Your task to perform on an android device: Open Wikipedia Image 0: 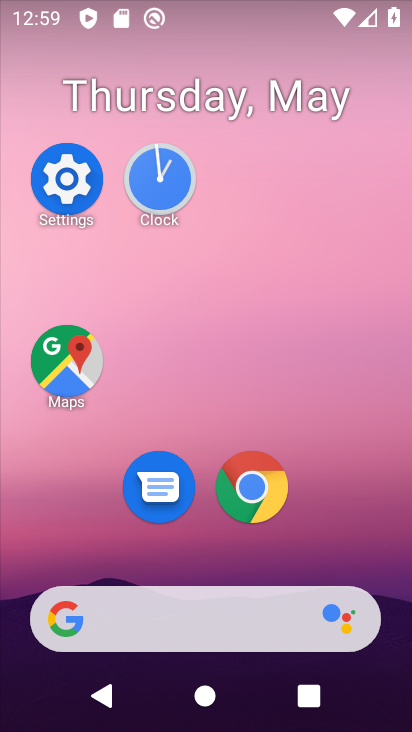
Step 0: click (261, 498)
Your task to perform on an android device: Open Wikipedia Image 1: 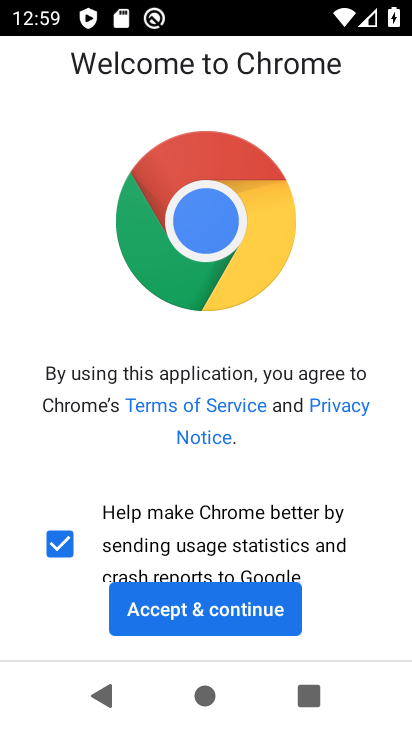
Step 1: click (167, 616)
Your task to perform on an android device: Open Wikipedia Image 2: 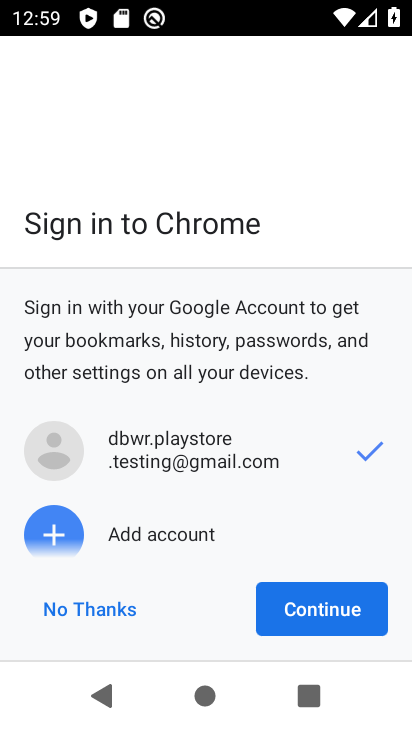
Step 2: click (311, 611)
Your task to perform on an android device: Open Wikipedia Image 3: 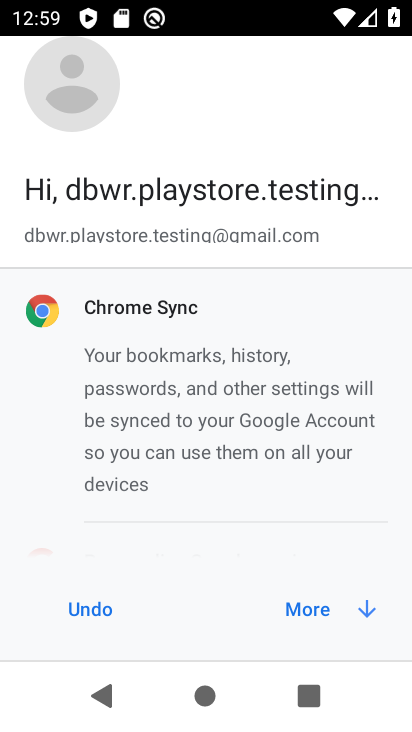
Step 3: click (329, 612)
Your task to perform on an android device: Open Wikipedia Image 4: 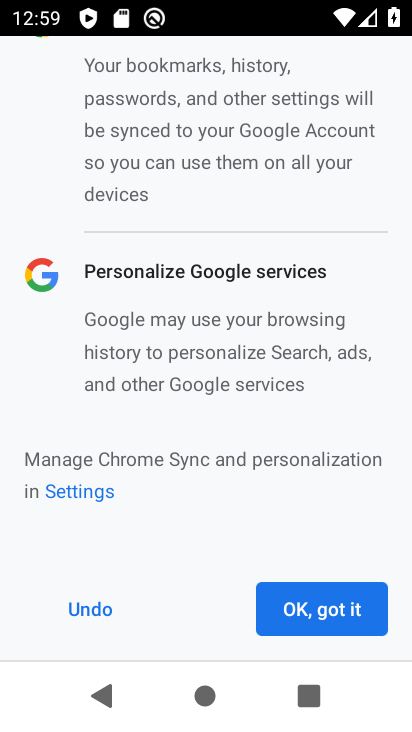
Step 4: click (328, 612)
Your task to perform on an android device: Open Wikipedia Image 5: 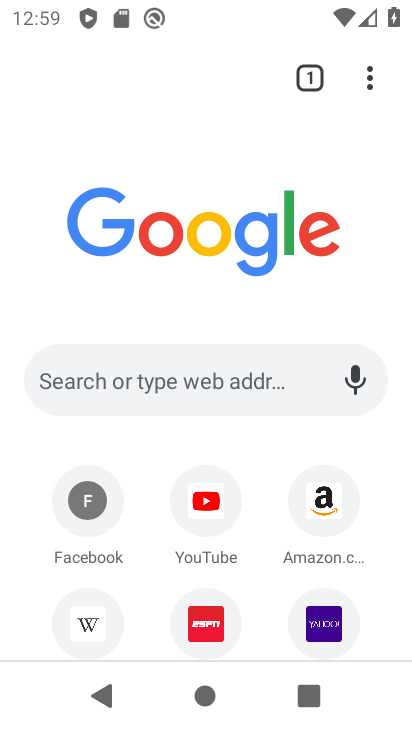
Step 5: click (98, 616)
Your task to perform on an android device: Open Wikipedia Image 6: 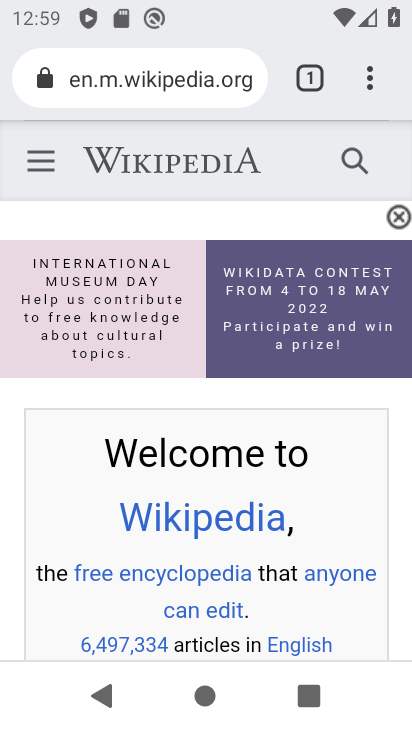
Step 6: task complete